Your task to perform on an android device: set default search engine in the chrome app Image 0: 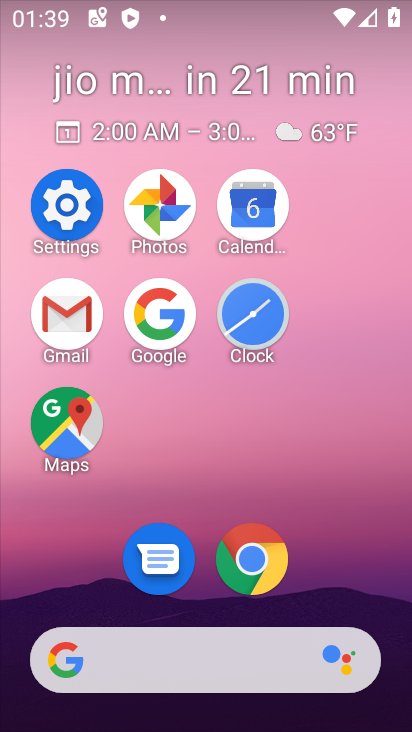
Step 0: click (74, 203)
Your task to perform on an android device: set default search engine in the chrome app Image 1: 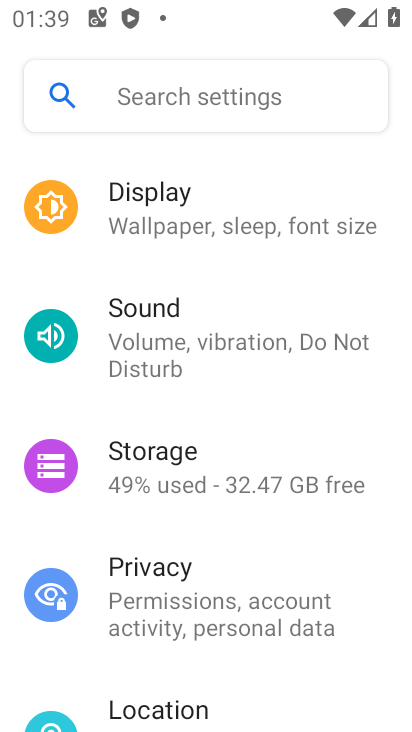
Step 1: press home button
Your task to perform on an android device: set default search engine in the chrome app Image 2: 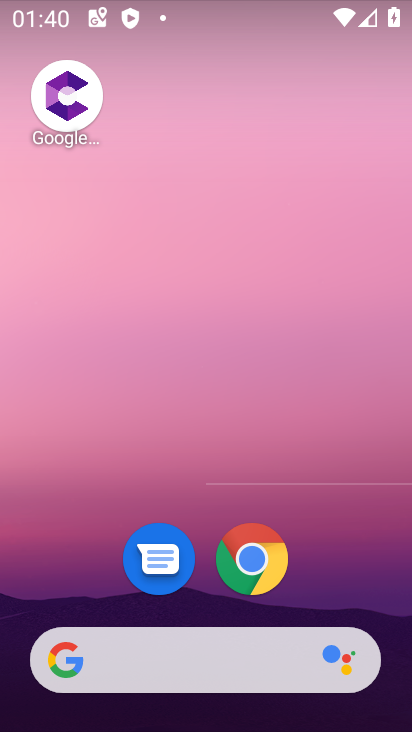
Step 2: click (242, 561)
Your task to perform on an android device: set default search engine in the chrome app Image 3: 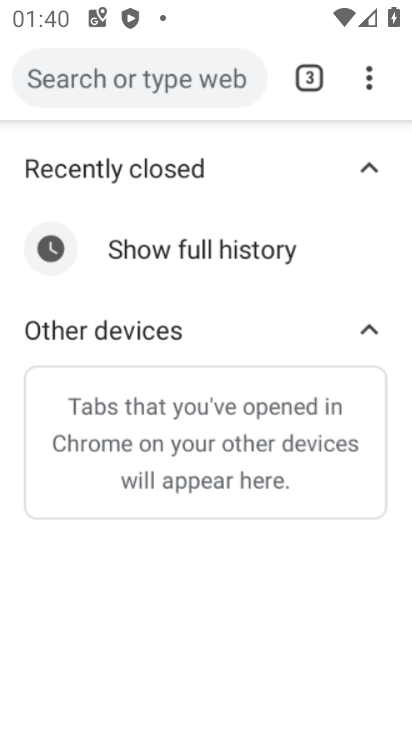
Step 3: click (358, 88)
Your task to perform on an android device: set default search engine in the chrome app Image 4: 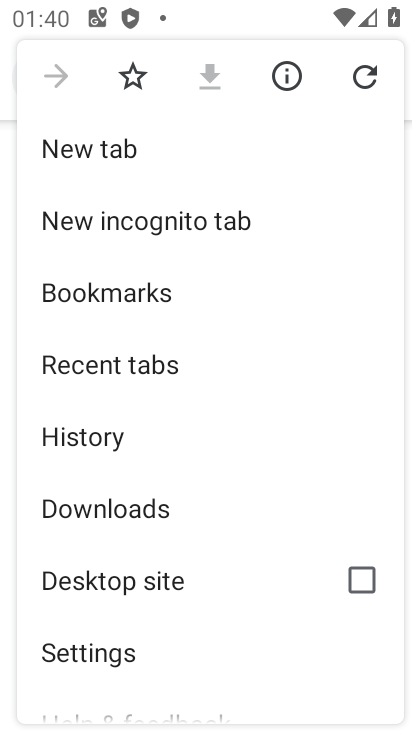
Step 4: drag from (160, 572) to (158, 283)
Your task to perform on an android device: set default search engine in the chrome app Image 5: 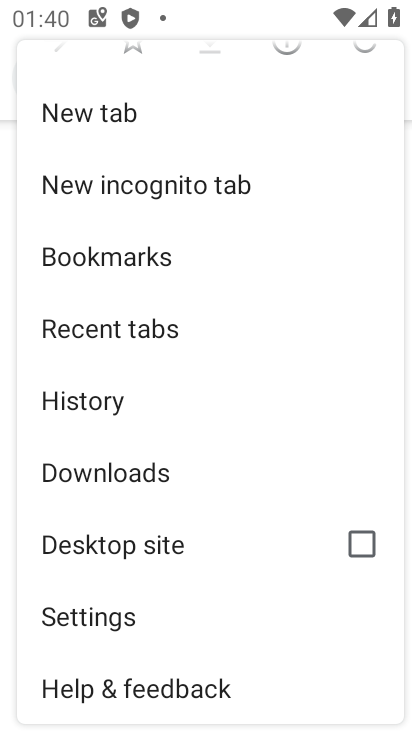
Step 5: click (128, 613)
Your task to perform on an android device: set default search engine in the chrome app Image 6: 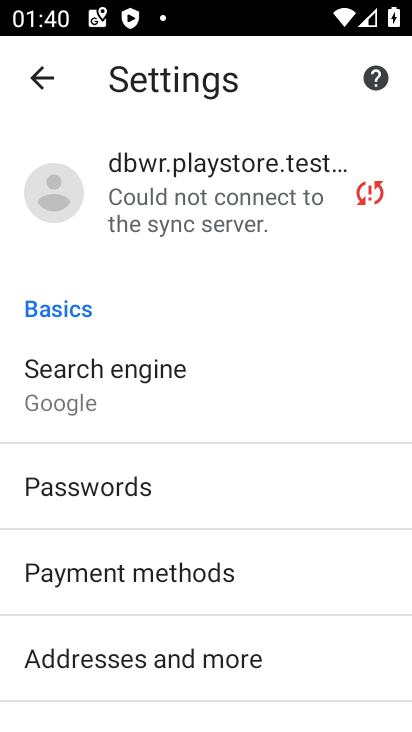
Step 6: click (198, 402)
Your task to perform on an android device: set default search engine in the chrome app Image 7: 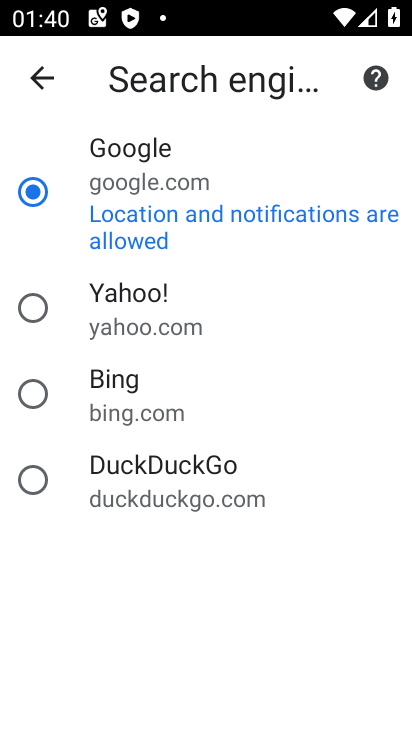
Step 7: task complete